Your task to perform on an android device: check battery use Image 0: 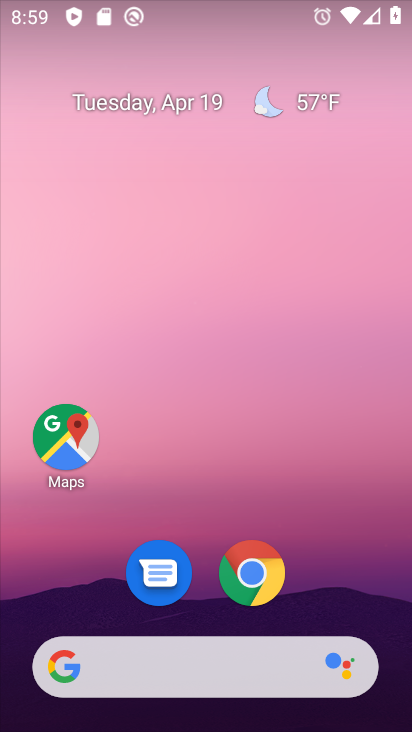
Step 0: drag from (351, 568) to (319, 25)
Your task to perform on an android device: check battery use Image 1: 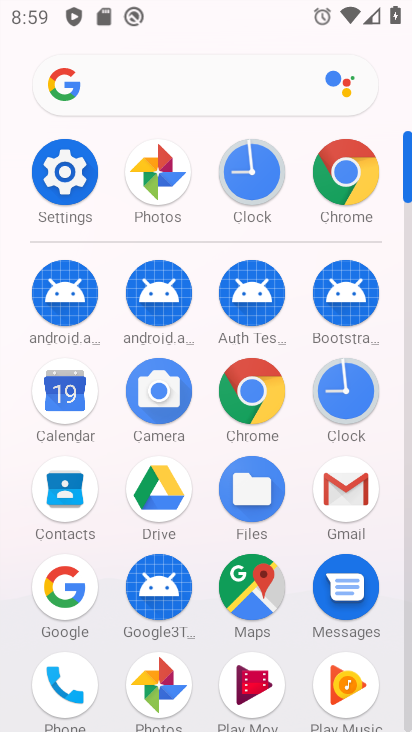
Step 1: click (50, 167)
Your task to perform on an android device: check battery use Image 2: 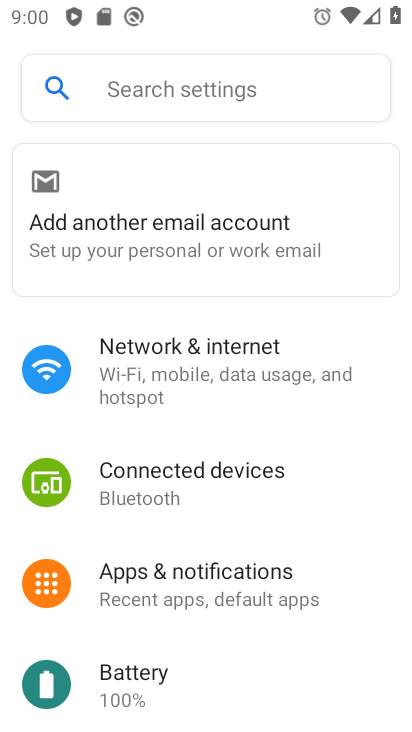
Step 2: click (154, 676)
Your task to perform on an android device: check battery use Image 3: 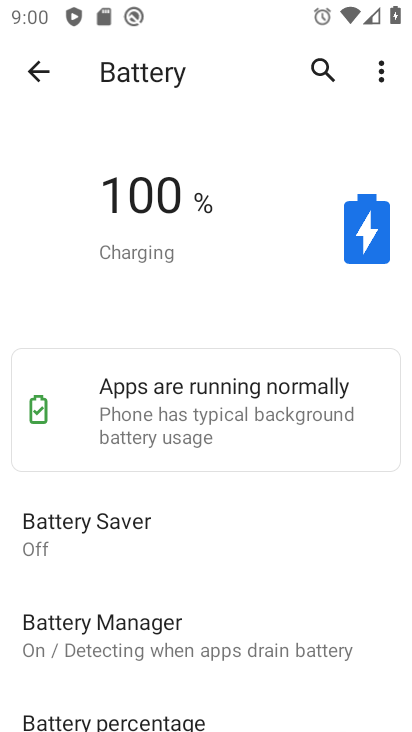
Step 3: click (382, 55)
Your task to perform on an android device: check battery use Image 4: 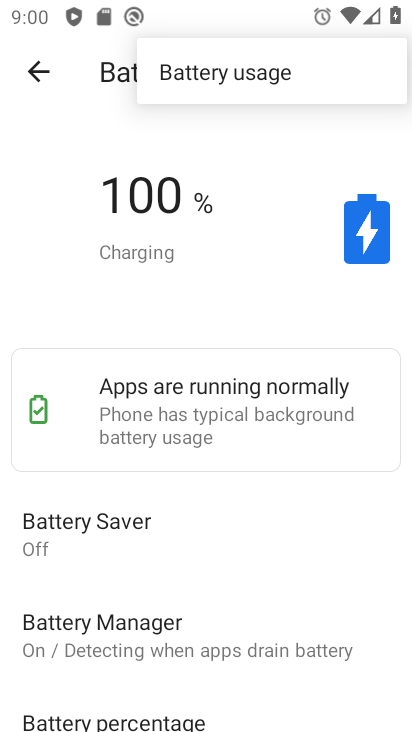
Step 4: click (261, 75)
Your task to perform on an android device: check battery use Image 5: 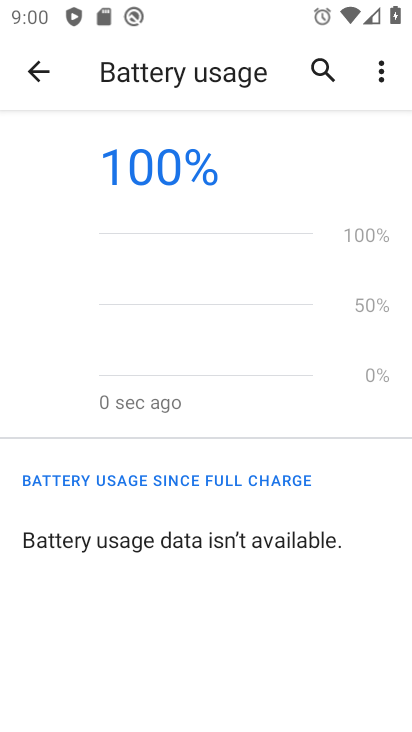
Step 5: task complete